Your task to perform on an android device: Go to privacy settings Image 0: 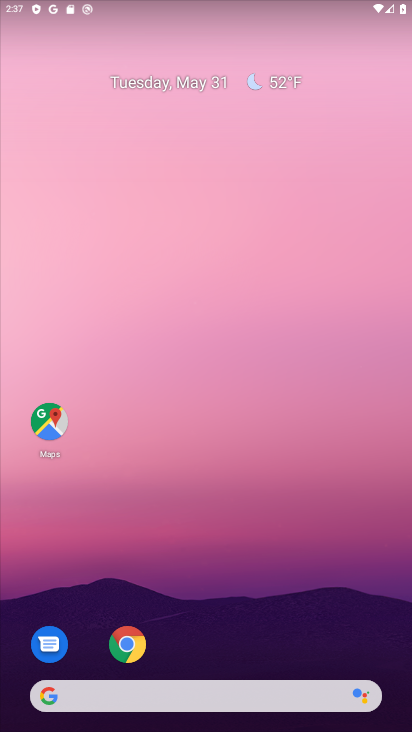
Step 0: drag from (309, 644) to (333, 149)
Your task to perform on an android device: Go to privacy settings Image 1: 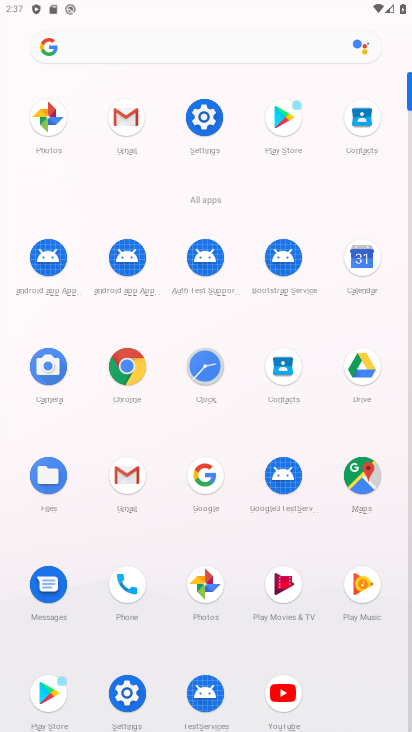
Step 1: click (205, 119)
Your task to perform on an android device: Go to privacy settings Image 2: 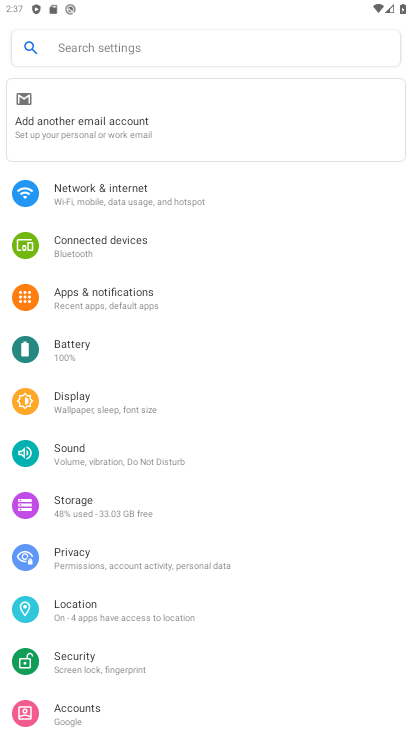
Step 2: click (99, 567)
Your task to perform on an android device: Go to privacy settings Image 3: 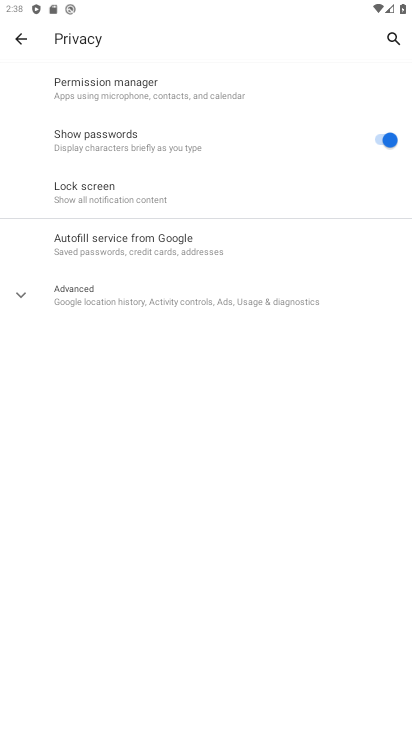
Step 3: task complete